Your task to perform on an android device: turn on wifi Image 0: 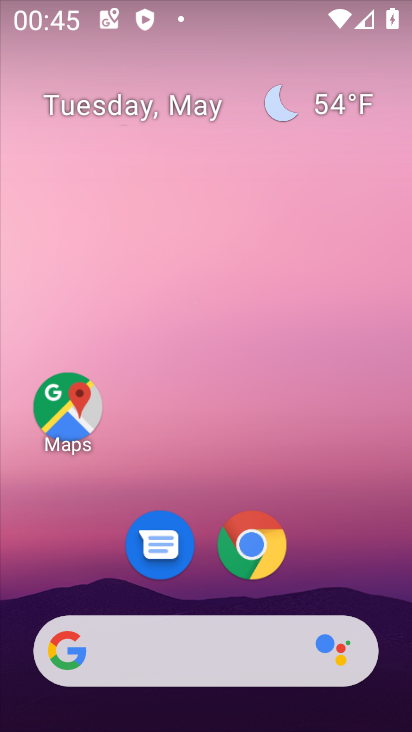
Step 0: drag from (268, 15) to (317, 497)
Your task to perform on an android device: turn on wifi Image 1: 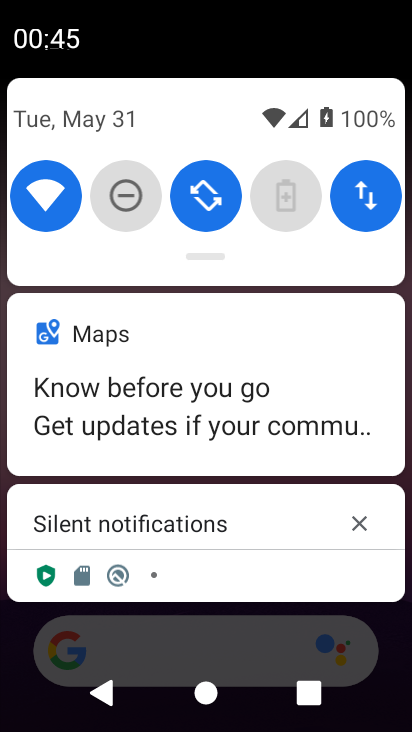
Step 1: task complete